Your task to perform on an android device: choose inbox layout in the gmail app Image 0: 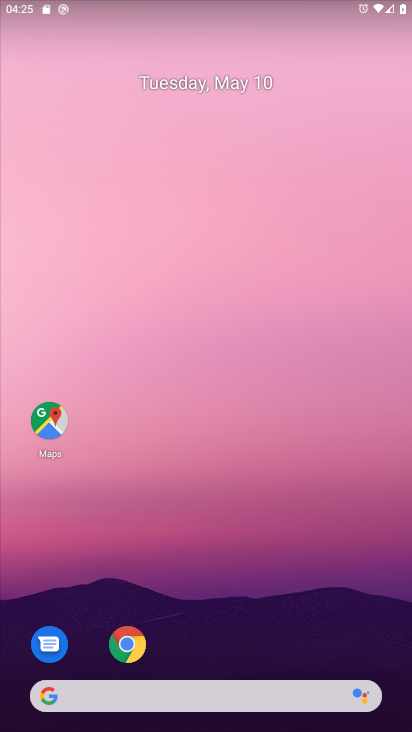
Step 0: drag from (228, 643) to (225, 215)
Your task to perform on an android device: choose inbox layout in the gmail app Image 1: 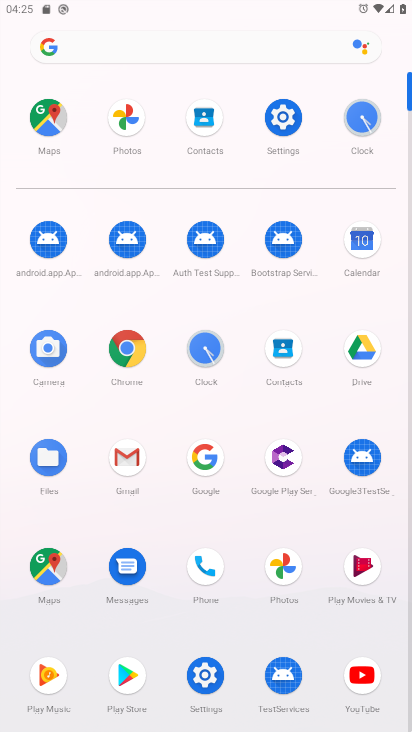
Step 1: click (122, 453)
Your task to perform on an android device: choose inbox layout in the gmail app Image 2: 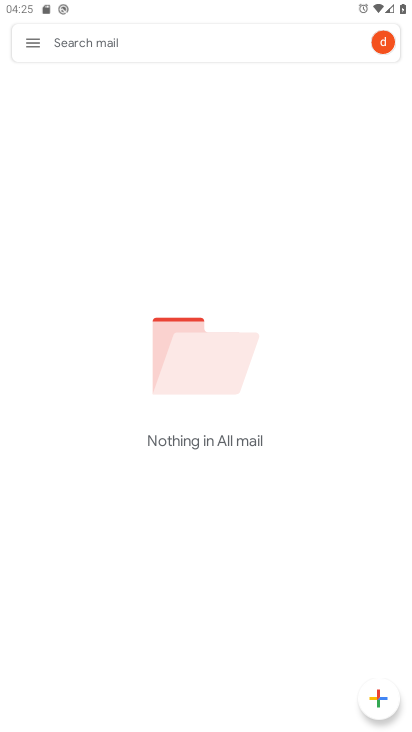
Step 2: click (34, 34)
Your task to perform on an android device: choose inbox layout in the gmail app Image 3: 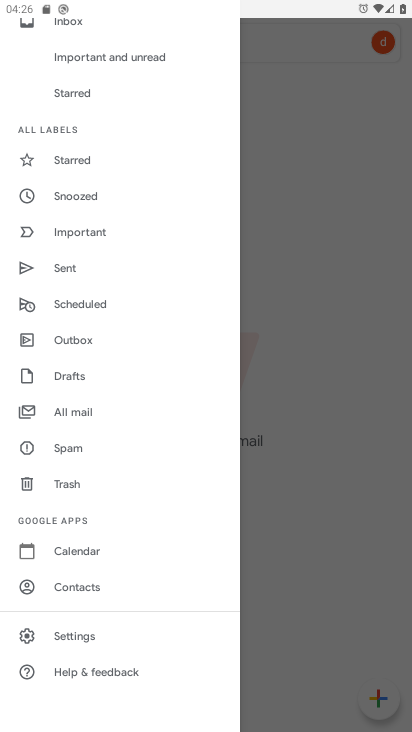
Step 3: click (103, 637)
Your task to perform on an android device: choose inbox layout in the gmail app Image 4: 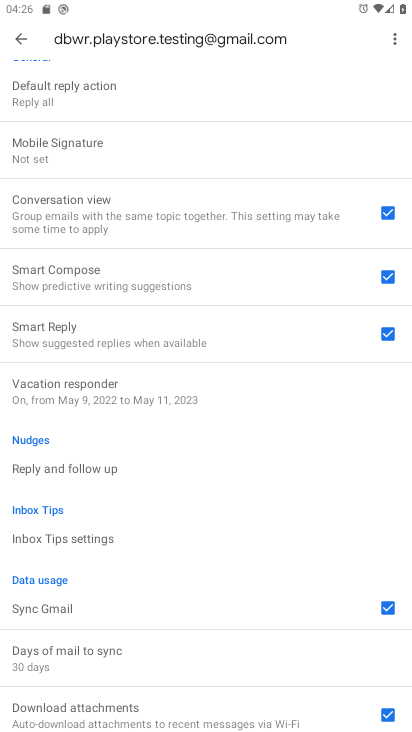
Step 4: drag from (82, 163) to (91, 722)
Your task to perform on an android device: choose inbox layout in the gmail app Image 5: 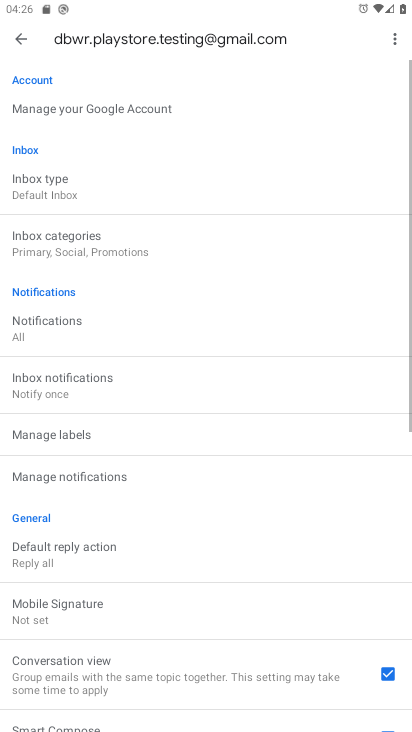
Step 5: click (61, 186)
Your task to perform on an android device: choose inbox layout in the gmail app Image 6: 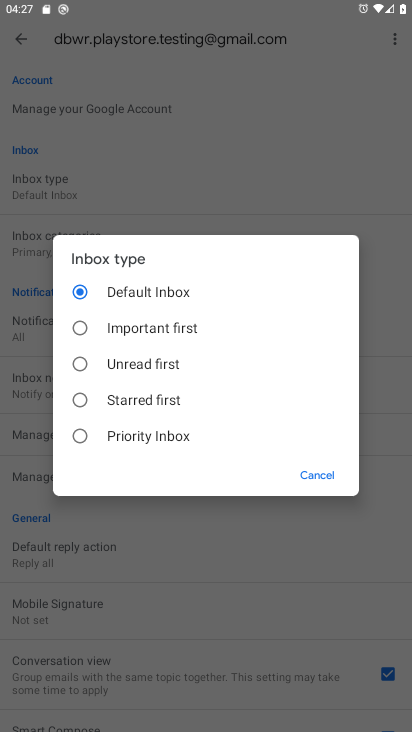
Step 6: click (97, 436)
Your task to perform on an android device: choose inbox layout in the gmail app Image 7: 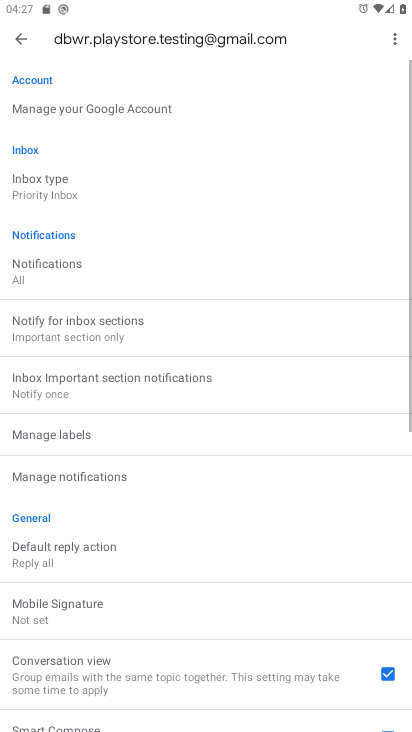
Step 7: task complete